Your task to perform on an android device: Go to eBay Image 0: 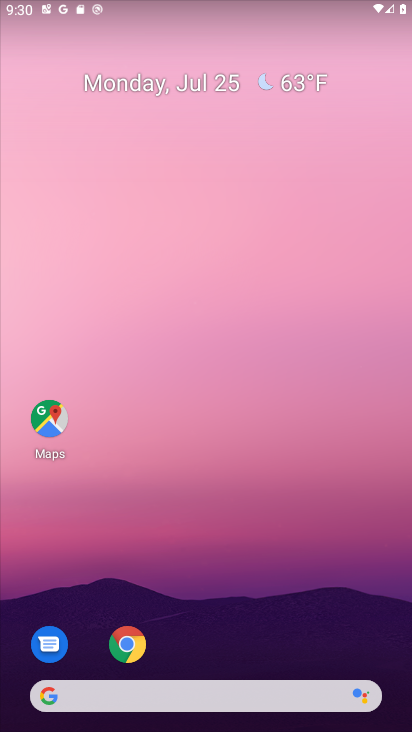
Step 0: drag from (268, 604) to (215, 12)
Your task to perform on an android device: Go to eBay Image 1: 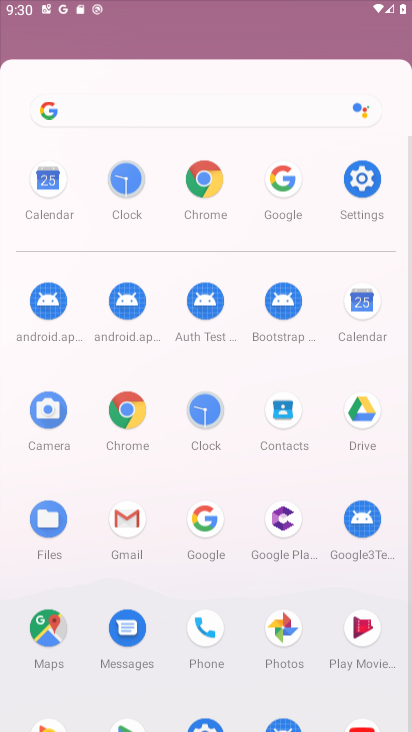
Step 1: drag from (254, 286) to (254, 170)
Your task to perform on an android device: Go to eBay Image 2: 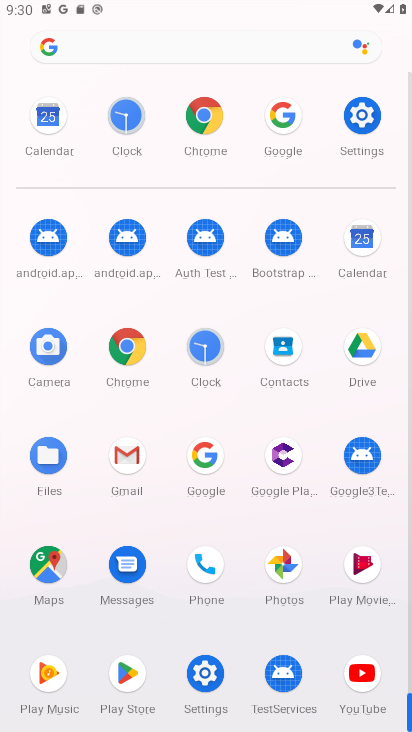
Step 2: drag from (303, 537) to (272, 106)
Your task to perform on an android device: Go to eBay Image 3: 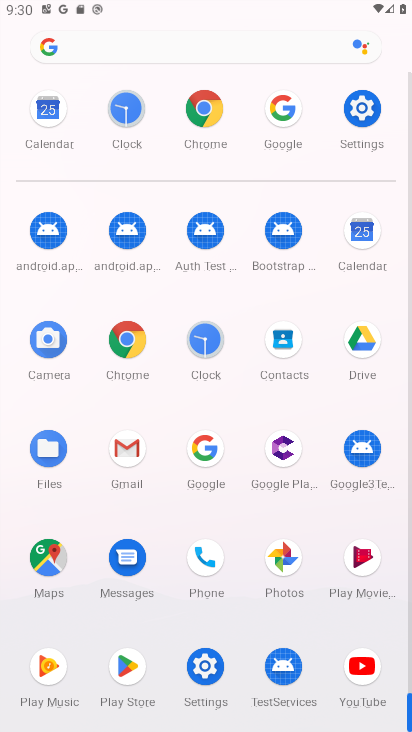
Step 3: click (131, 338)
Your task to perform on an android device: Go to eBay Image 4: 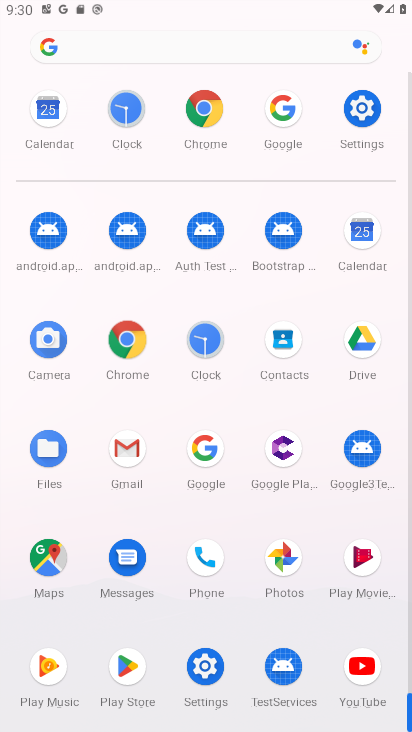
Step 4: click (138, 338)
Your task to perform on an android device: Go to eBay Image 5: 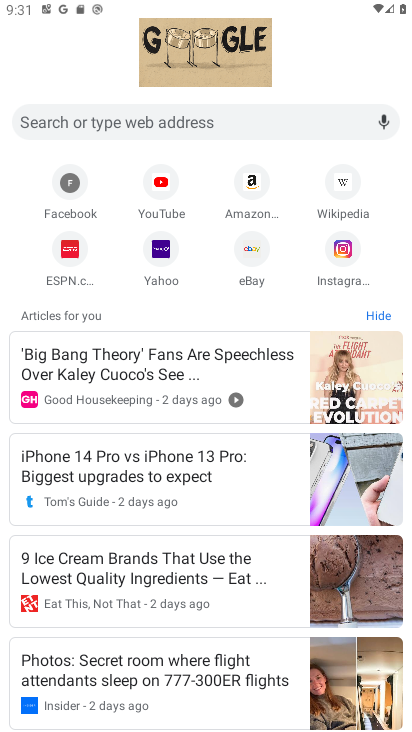
Step 5: click (257, 253)
Your task to perform on an android device: Go to eBay Image 6: 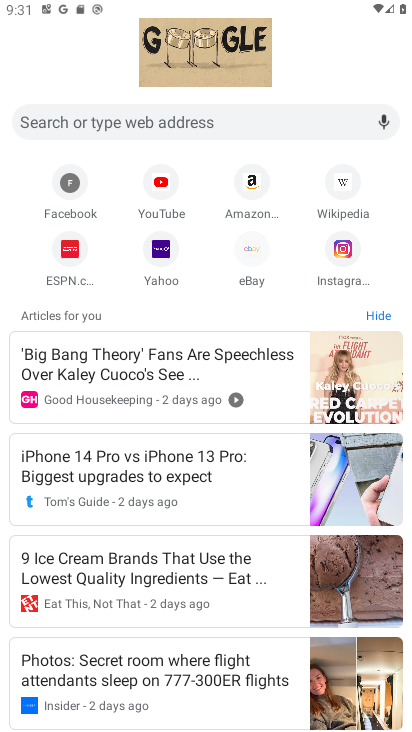
Step 6: click (260, 251)
Your task to perform on an android device: Go to eBay Image 7: 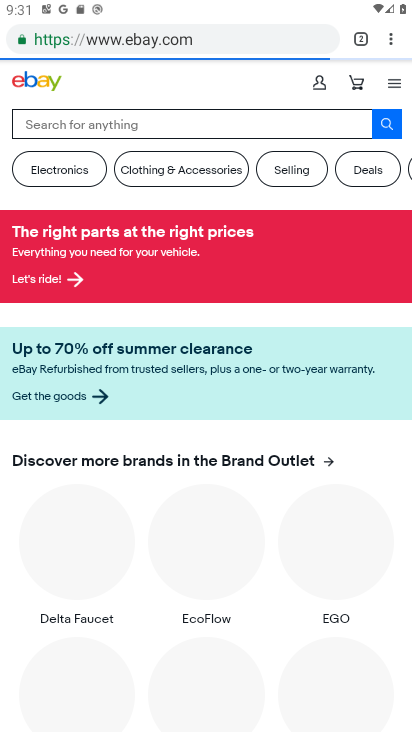
Step 7: task complete